Your task to perform on an android device: Do I have any events this weekend? Image 0: 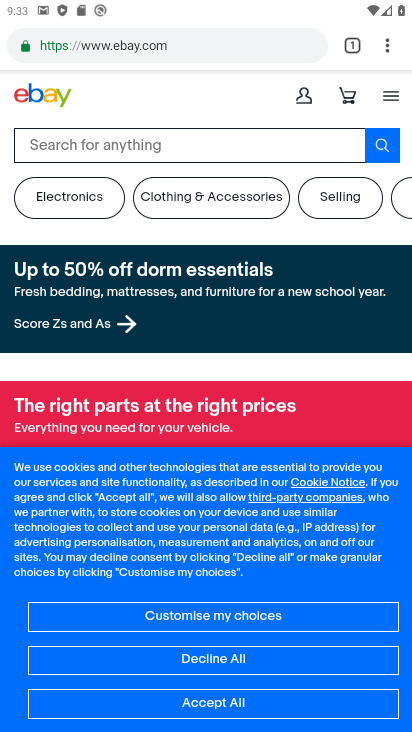
Step 0: press home button
Your task to perform on an android device: Do I have any events this weekend? Image 1: 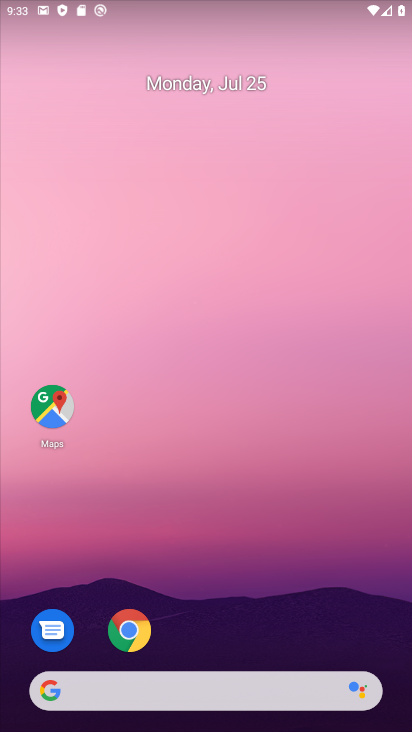
Step 1: drag from (289, 623) to (257, 198)
Your task to perform on an android device: Do I have any events this weekend? Image 2: 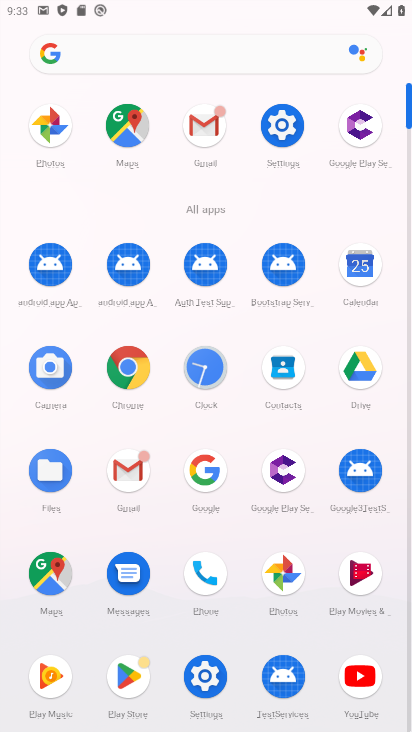
Step 2: click (370, 280)
Your task to perform on an android device: Do I have any events this weekend? Image 3: 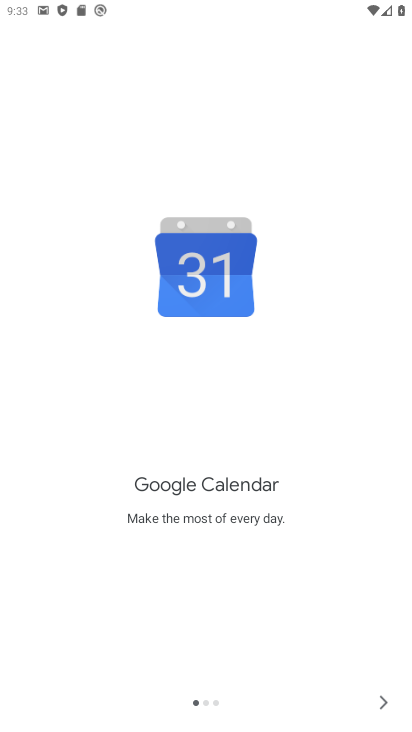
Step 3: click (376, 695)
Your task to perform on an android device: Do I have any events this weekend? Image 4: 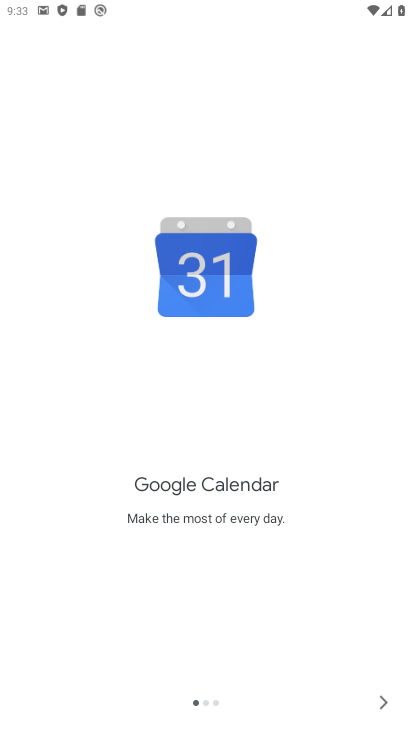
Step 4: click (376, 695)
Your task to perform on an android device: Do I have any events this weekend? Image 5: 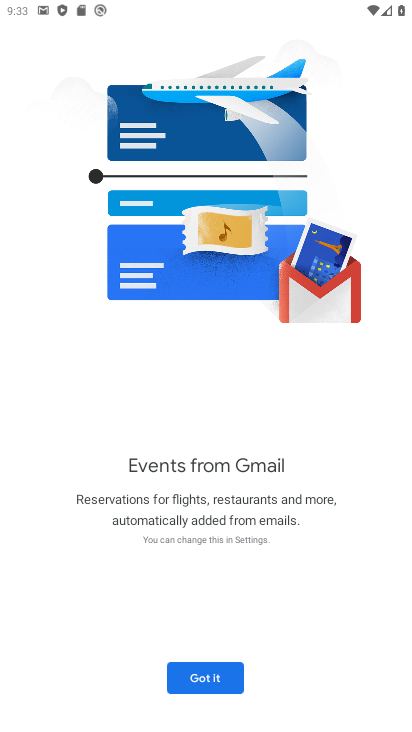
Step 5: click (214, 677)
Your task to perform on an android device: Do I have any events this weekend? Image 6: 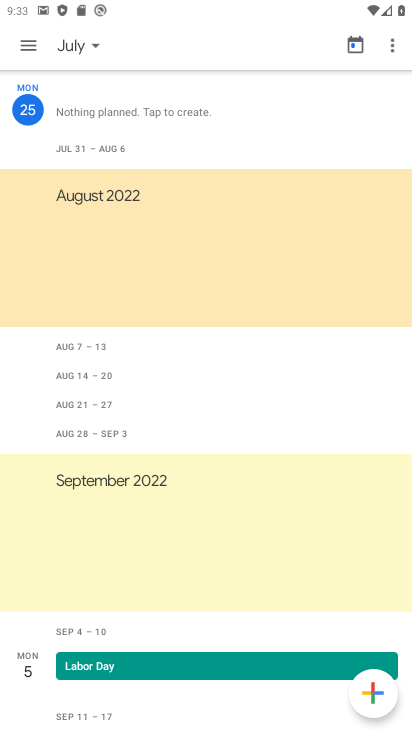
Step 6: click (29, 46)
Your task to perform on an android device: Do I have any events this weekend? Image 7: 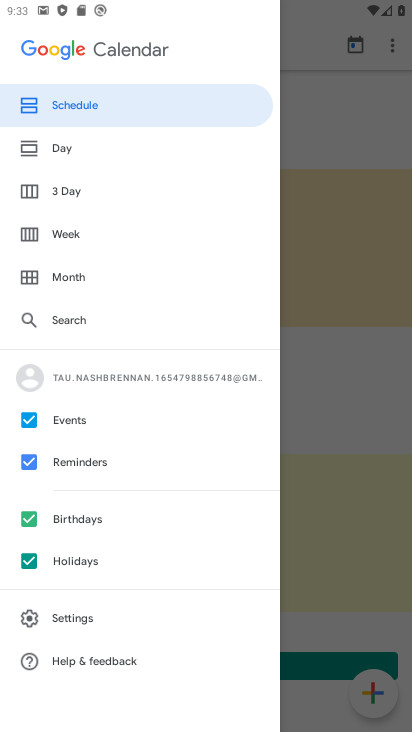
Step 7: click (83, 239)
Your task to perform on an android device: Do I have any events this weekend? Image 8: 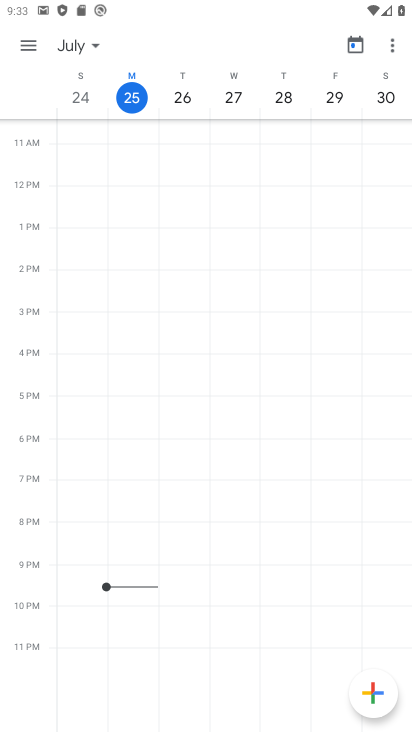
Step 8: task complete